Your task to perform on an android device: Show me recent news Image 0: 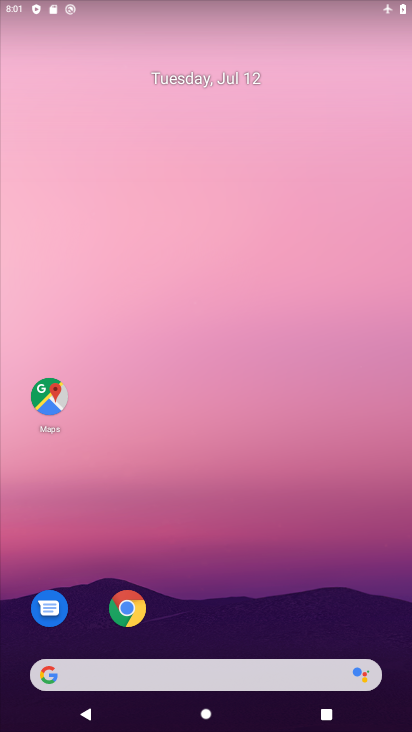
Step 0: drag from (16, 305) to (366, 301)
Your task to perform on an android device: Show me recent news Image 1: 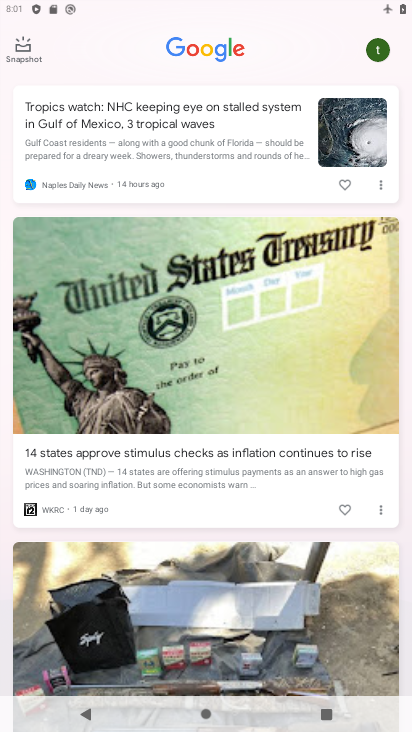
Step 1: task complete